Your task to perform on an android device: open app "Viber Messenger" Image 0: 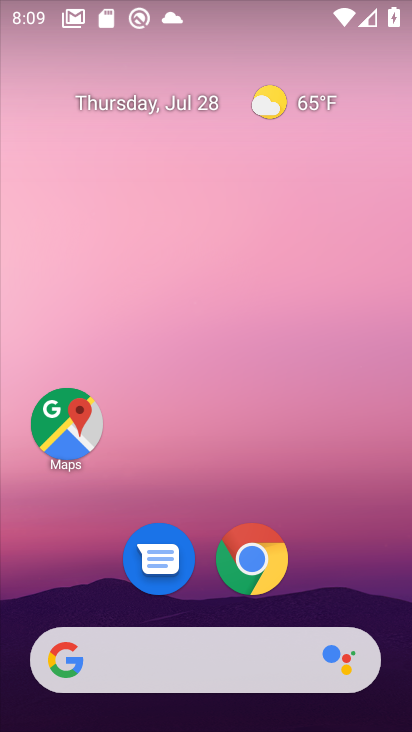
Step 0: drag from (199, 601) to (156, 14)
Your task to perform on an android device: open app "Viber Messenger" Image 1: 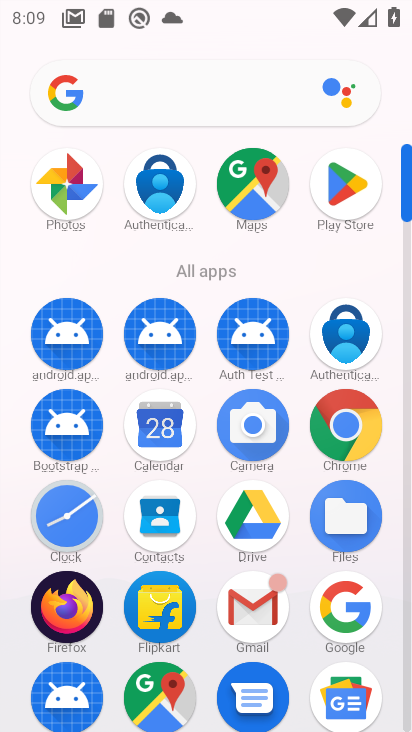
Step 1: click (355, 189)
Your task to perform on an android device: open app "Viber Messenger" Image 2: 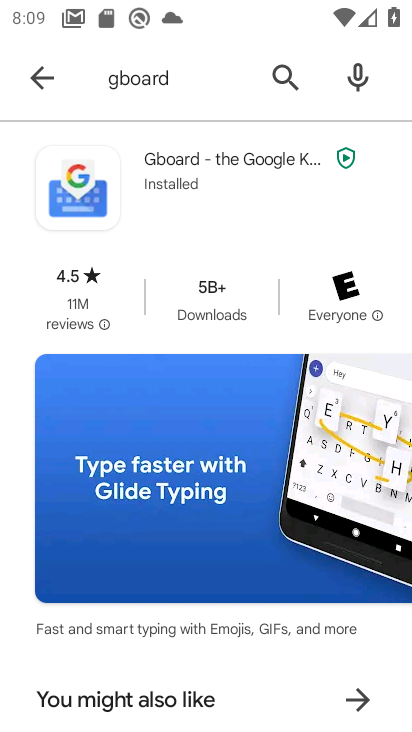
Step 2: click (163, 104)
Your task to perform on an android device: open app "Viber Messenger" Image 3: 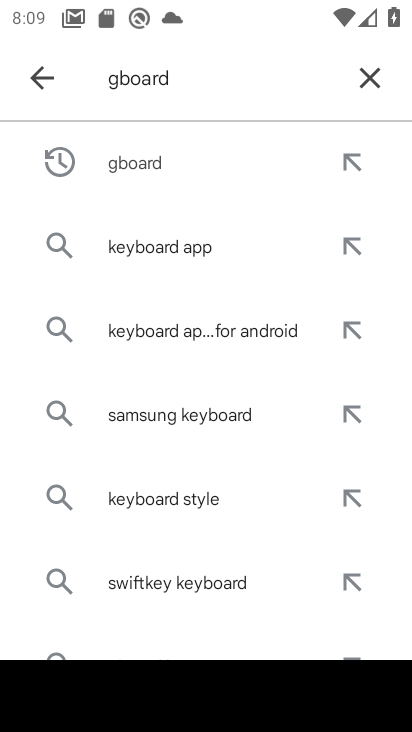
Step 3: click (363, 80)
Your task to perform on an android device: open app "Viber Messenger" Image 4: 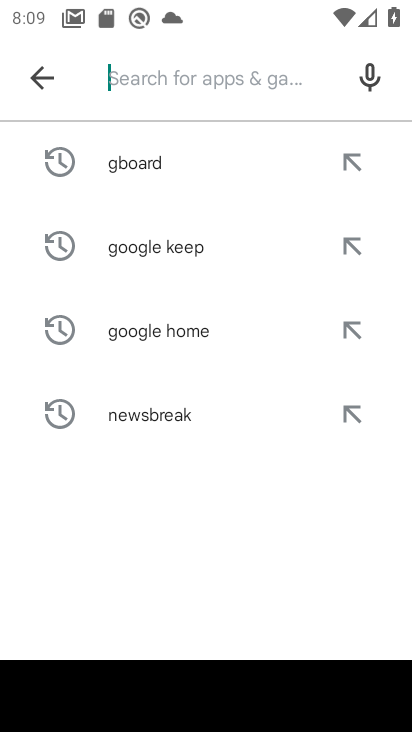
Step 4: type "Viber Messenger"
Your task to perform on an android device: open app "Viber Messenger" Image 5: 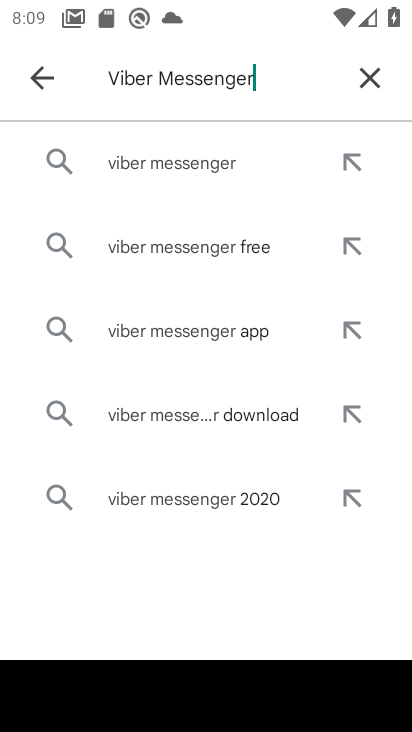
Step 5: click (174, 168)
Your task to perform on an android device: open app "Viber Messenger" Image 6: 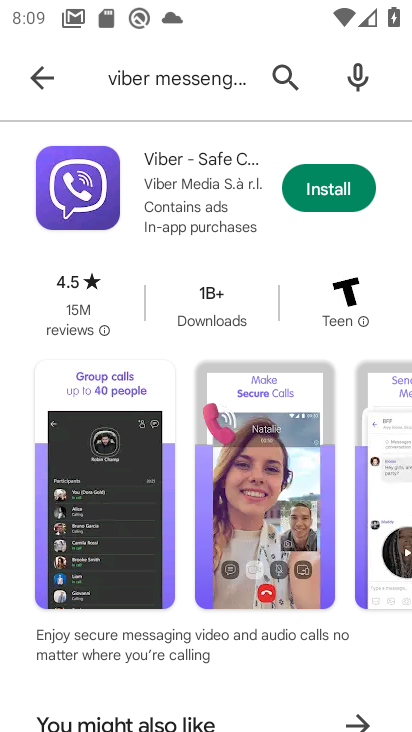
Step 6: task complete